Your task to perform on an android device: change the upload size in google photos Image 0: 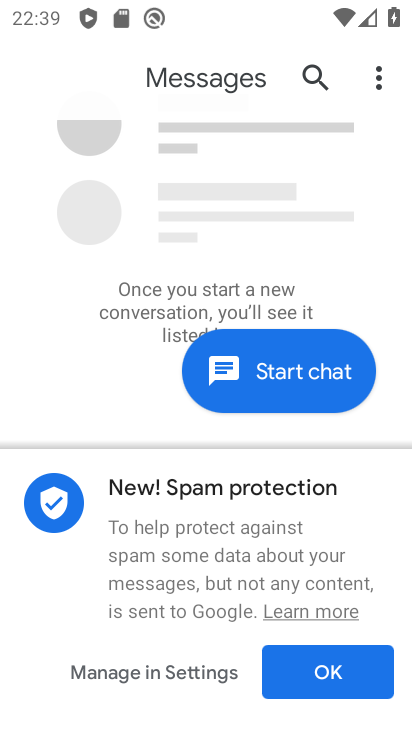
Step 0: press home button
Your task to perform on an android device: change the upload size in google photos Image 1: 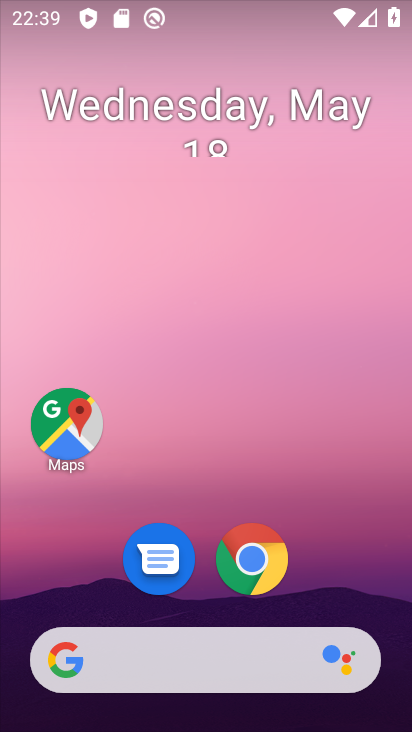
Step 1: drag from (306, 586) to (238, 177)
Your task to perform on an android device: change the upload size in google photos Image 2: 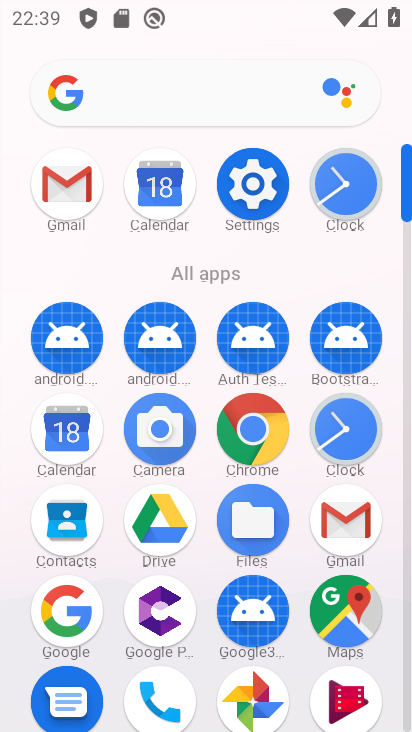
Step 2: click (242, 696)
Your task to perform on an android device: change the upload size in google photos Image 3: 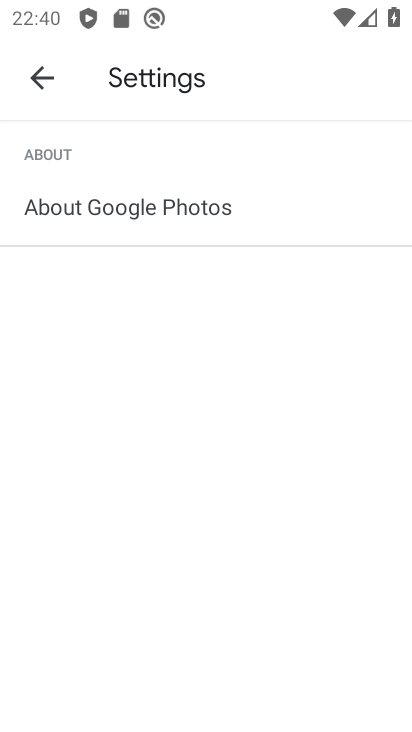
Step 3: press back button
Your task to perform on an android device: change the upload size in google photos Image 4: 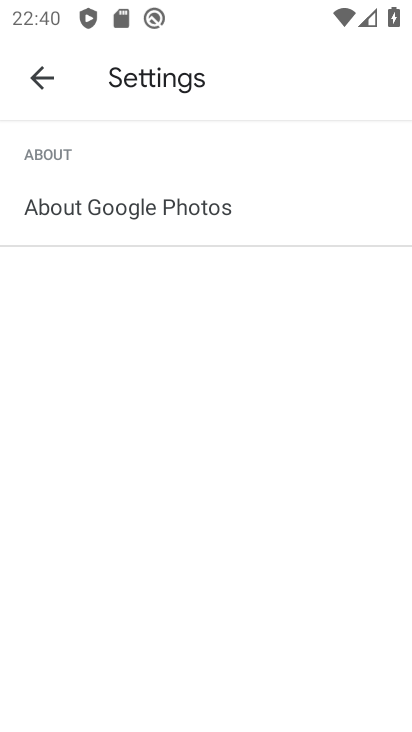
Step 4: press back button
Your task to perform on an android device: change the upload size in google photos Image 5: 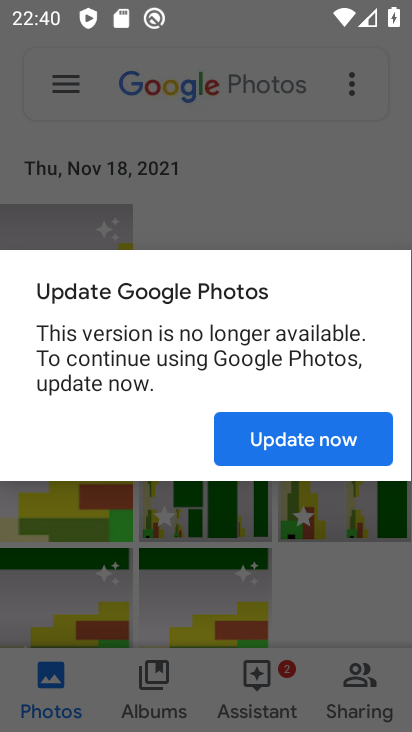
Step 5: press back button
Your task to perform on an android device: change the upload size in google photos Image 6: 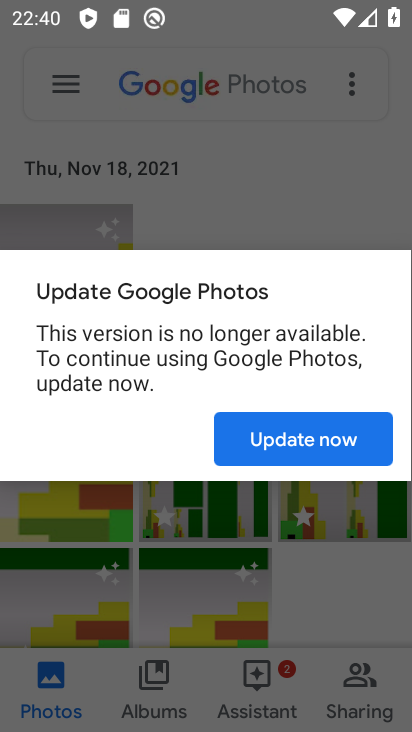
Step 6: press back button
Your task to perform on an android device: change the upload size in google photos Image 7: 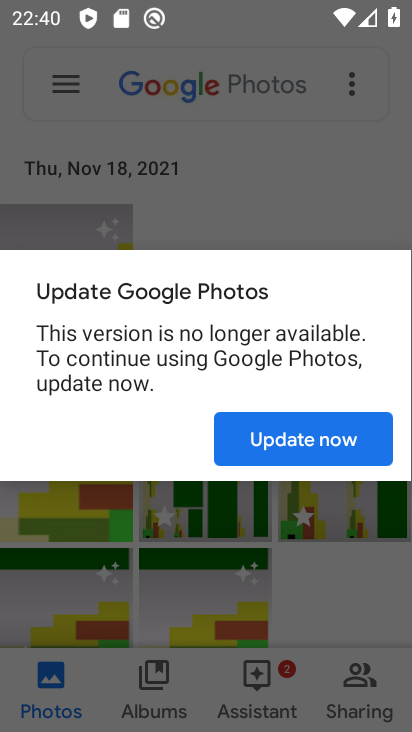
Step 7: click (71, 91)
Your task to perform on an android device: change the upload size in google photos Image 8: 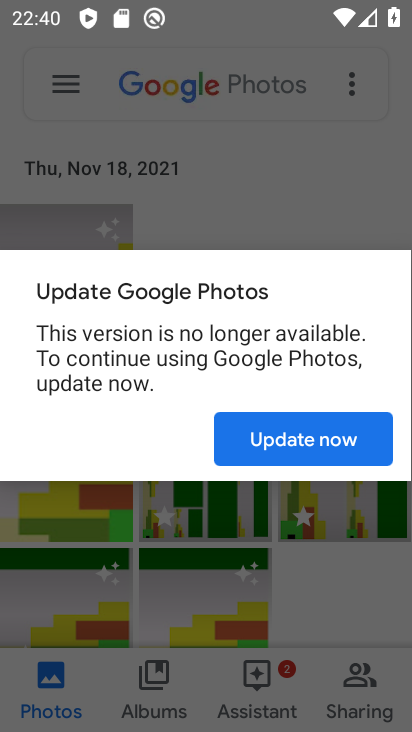
Step 8: click (267, 425)
Your task to perform on an android device: change the upload size in google photos Image 9: 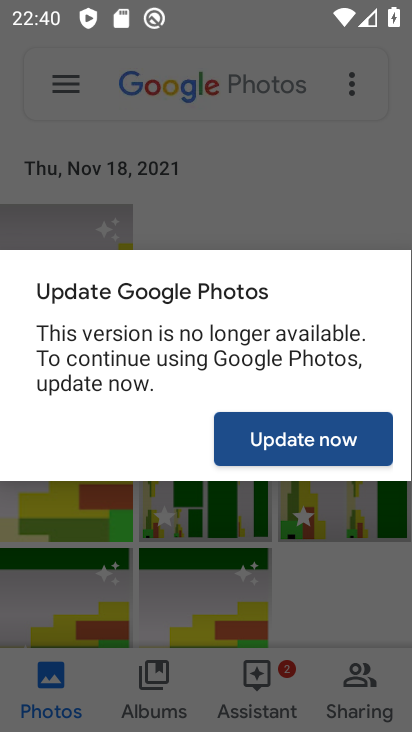
Step 9: click (271, 434)
Your task to perform on an android device: change the upload size in google photos Image 10: 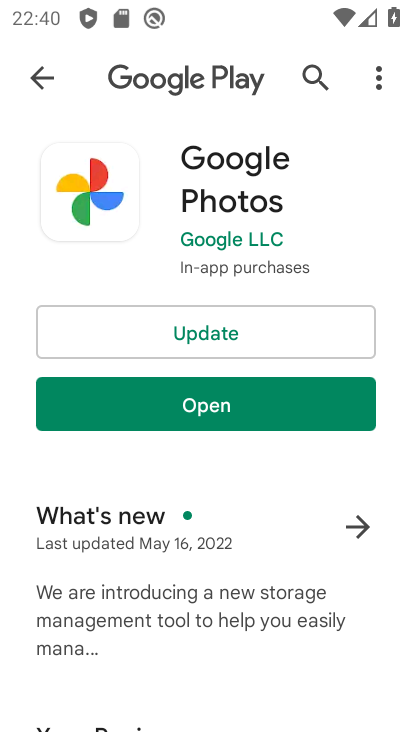
Step 10: click (204, 398)
Your task to perform on an android device: change the upload size in google photos Image 11: 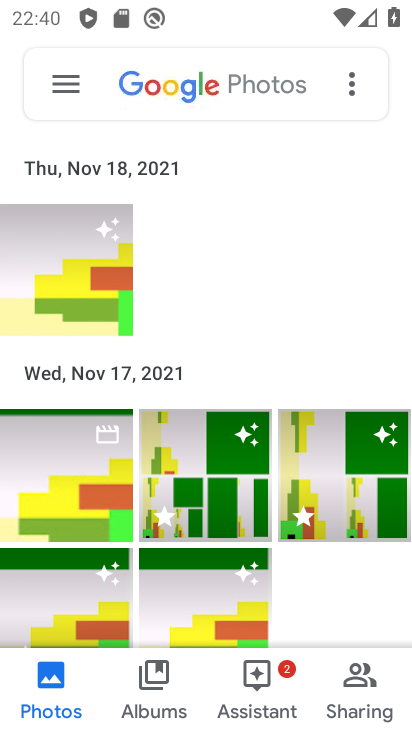
Step 11: click (63, 89)
Your task to perform on an android device: change the upload size in google photos Image 12: 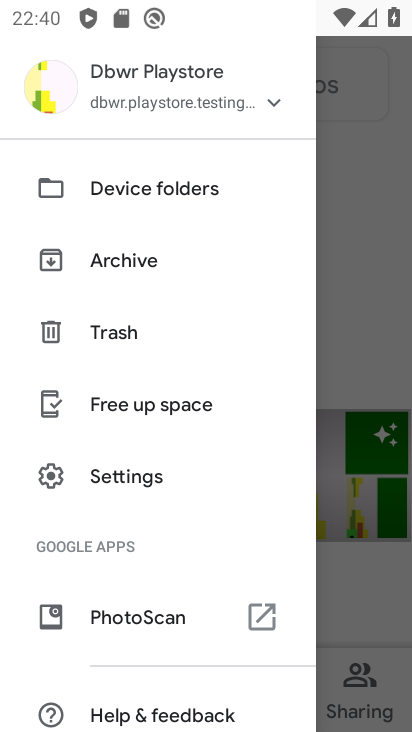
Step 12: click (145, 470)
Your task to perform on an android device: change the upload size in google photos Image 13: 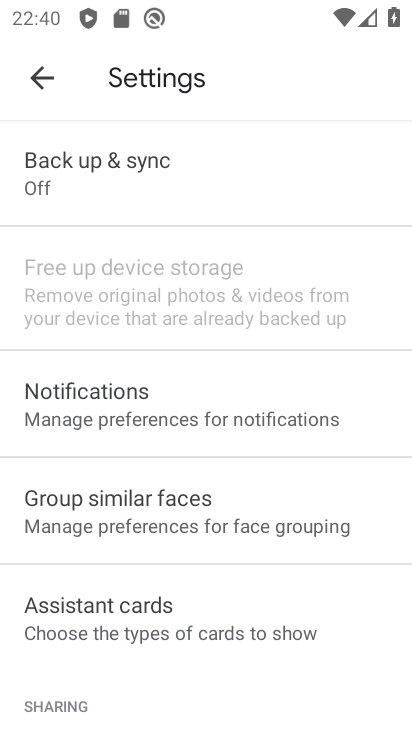
Step 13: drag from (156, 647) to (164, 450)
Your task to perform on an android device: change the upload size in google photos Image 14: 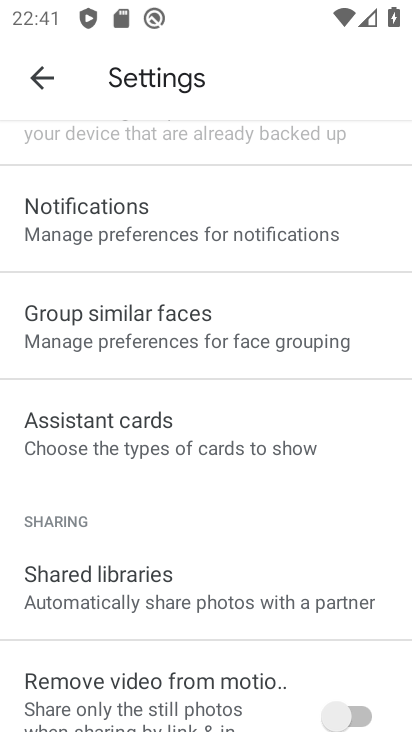
Step 14: drag from (133, 653) to (117, 333)
Your task to perform on an android device: change the upload size in google photos Image 15: 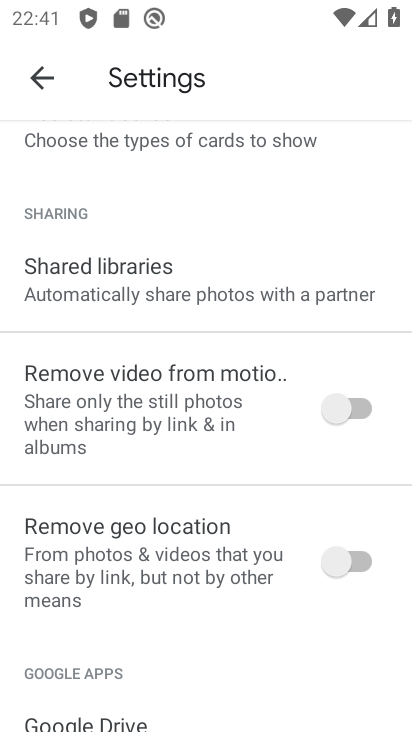
Step 15: drag from (140, 272) to (124, 664)
Your task to perform on an android device: change the upload size in google photos Image 16: 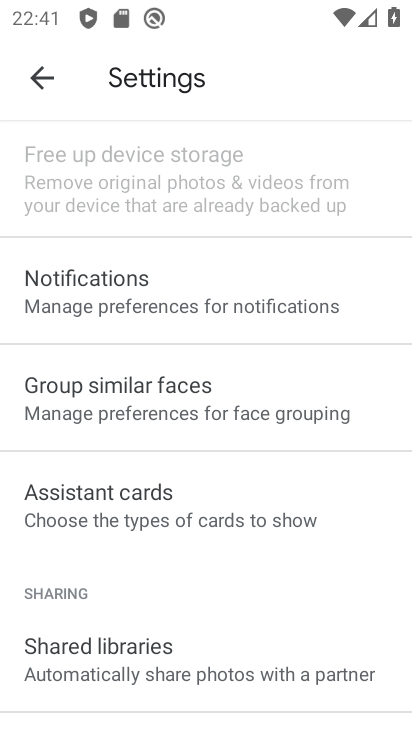
Step 16: drag from (153, 274) to (124, 597)
Your task to perform on an android device: change the upload size in google photos Image 17: 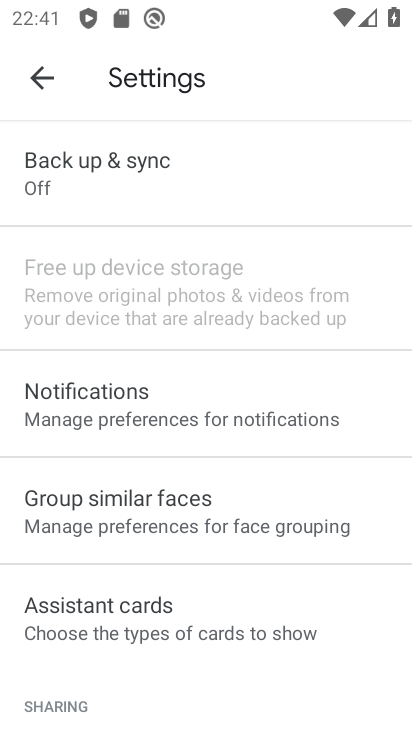
Step 17: click (107, 177)
Your task to perform on an android device: change the upload size in google photos Image 18: 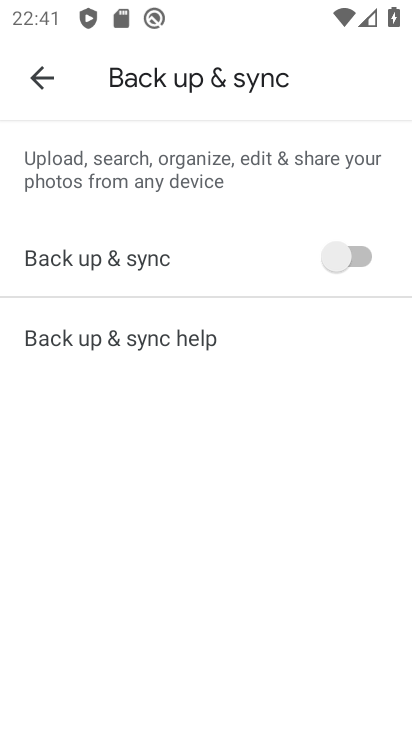
Step 18: click (356, 259)
Your task to perform on an android device: change the upload size in google photos Image 19: 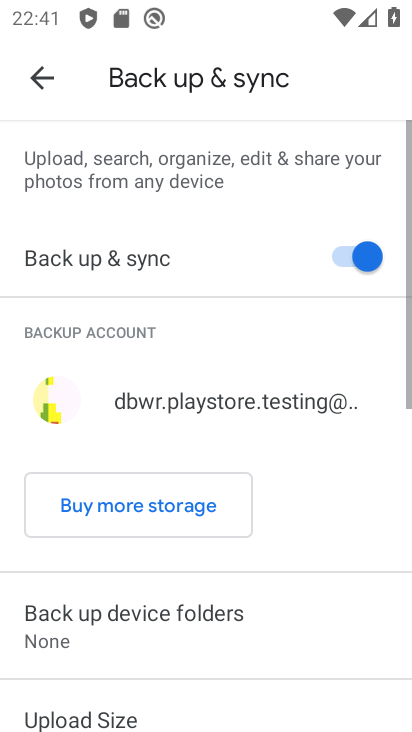
Step 19: drag from (128, 664) to (165, 359)
Your task to perform on an android device: change the upload size in google photos Image 20: 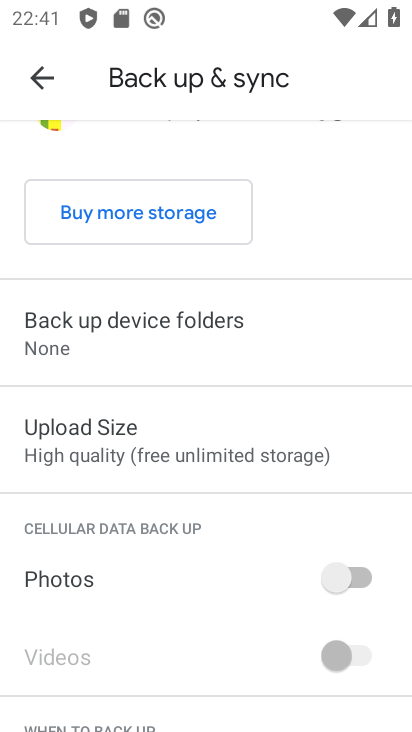
Step 20: click (157, 451)
Your task to perform on an android device: change the upload size in google photos Image 21: 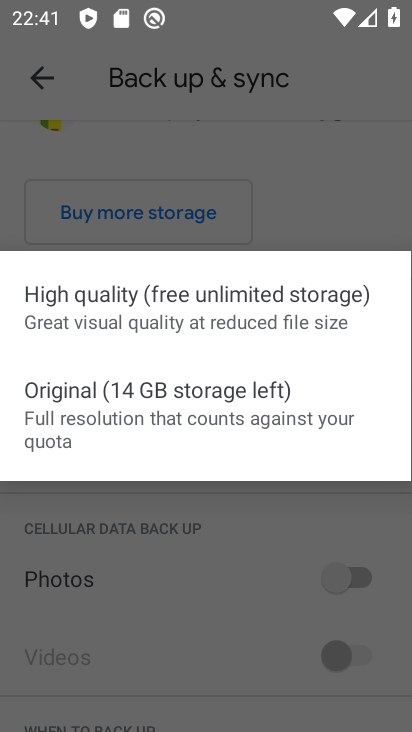
Step 21: click (115, 414)
Your task to perform on an android device: change the upload size in google photos Image 22: 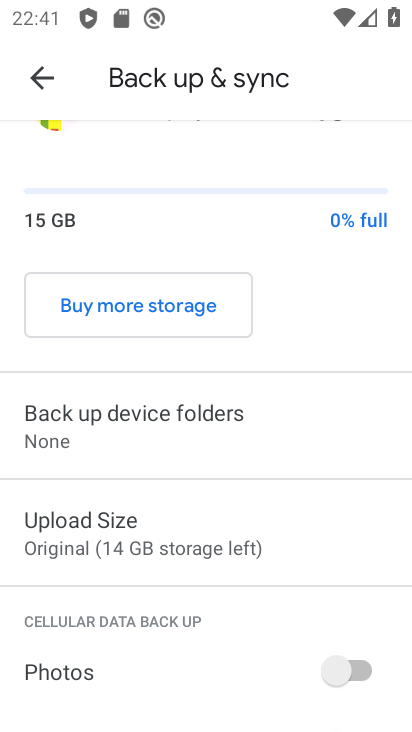
Step 22: task complete